Your task to perform on an android device: open app "Adobe Acrobat Reader: Edit PDF" Image 0: 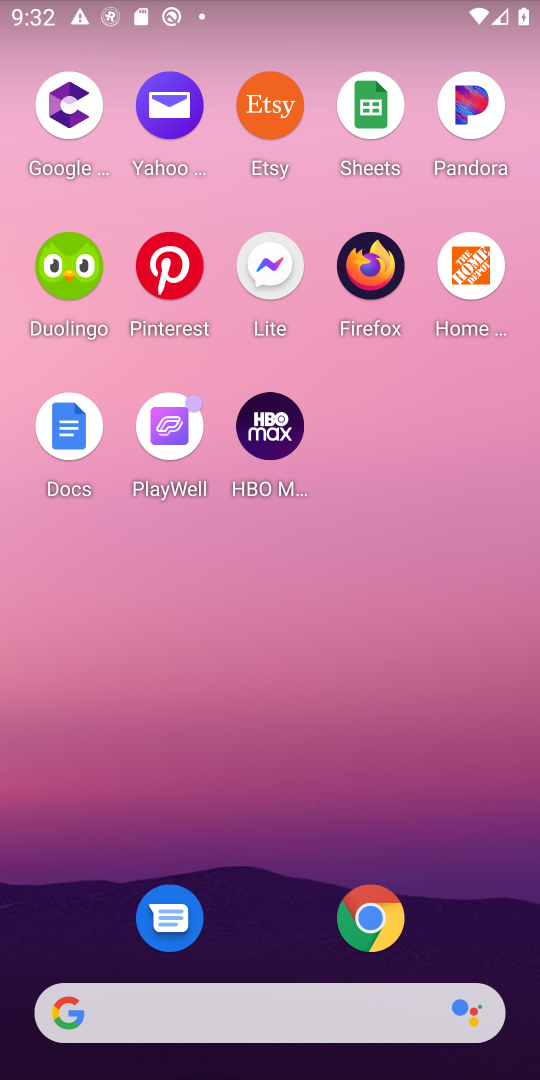
Step 0: drag from (183, 982) to (343, 434)
Your task to perform on an android device: open app "Adobe Acrobat Reader: Edit PDF" Image 1: 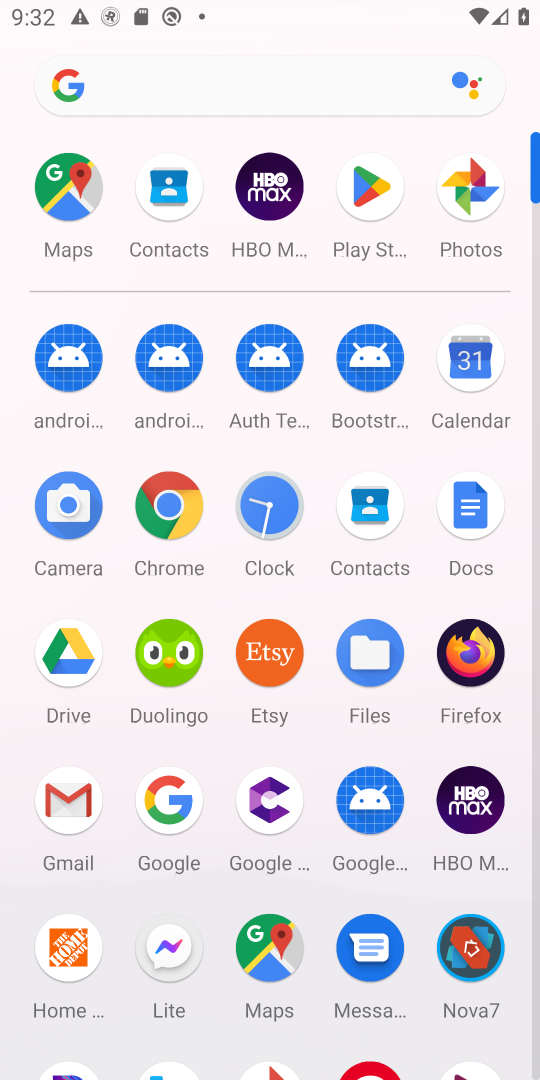
Step 1: click (375, 171)
Your task to perform on an android device: open app "Adobe Acrobat Reader: Edit PDF" Image 2: 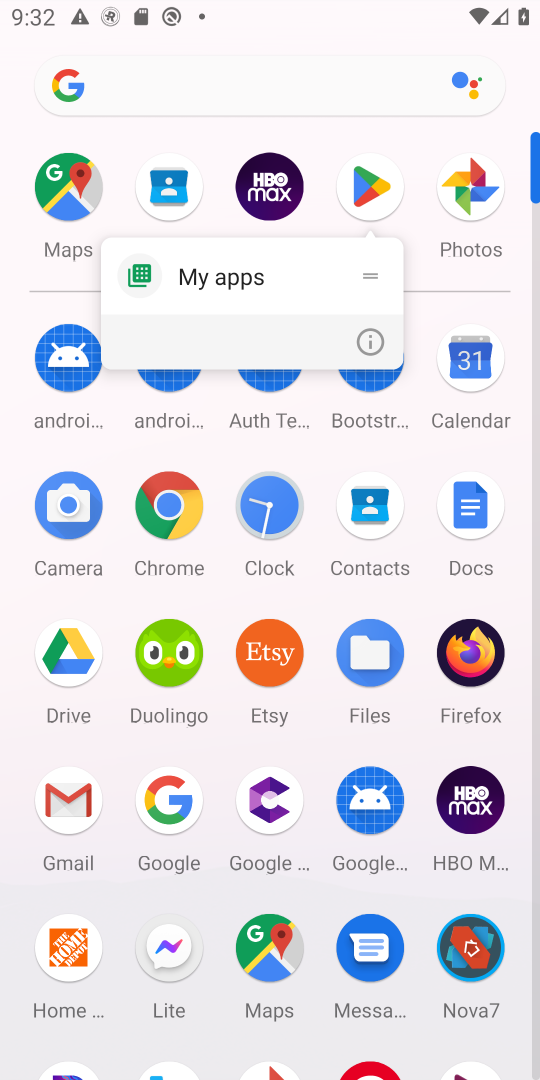
Step 2: click (349, 206)
Your task to perform on an android device: open app "Adobe Acrobat Reader: Edit PDF" Image 3: 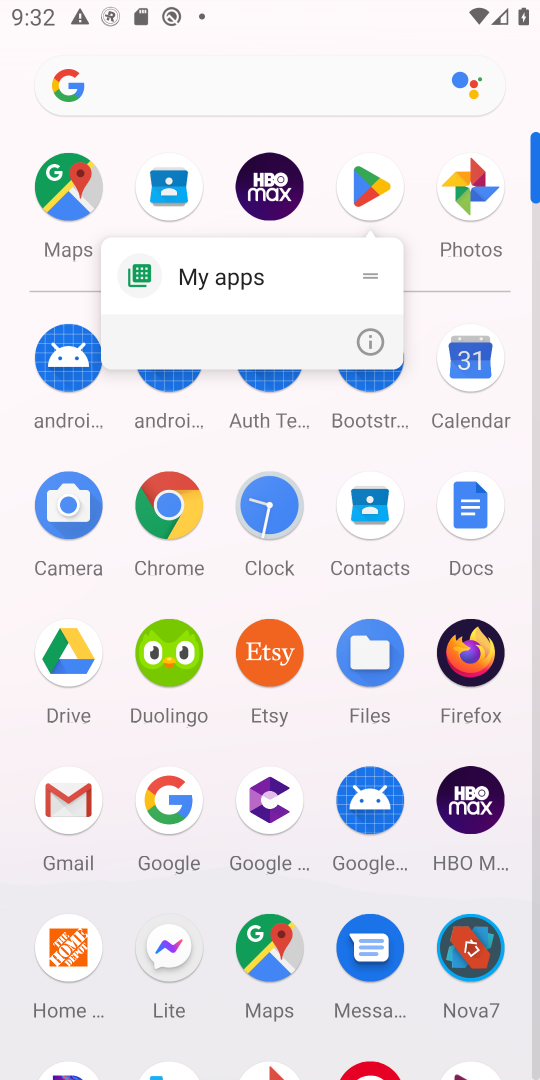
Step 3: click (353, 182)
Your task to perform on an android device: open app "Adobe Acrobat Reader: Edit PDF" Image 4: 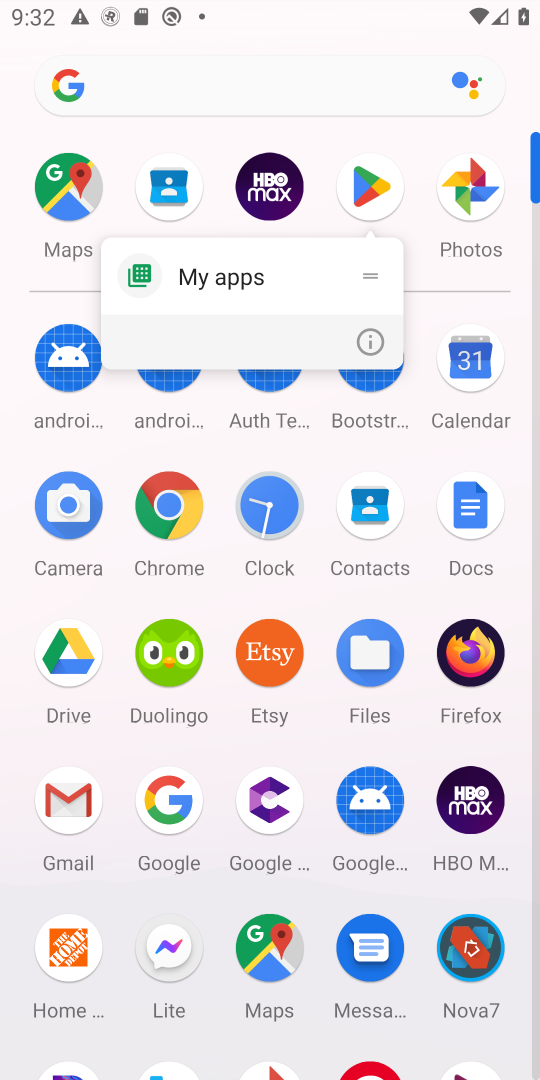
Step 4: click (353, 182)
Your task to perform on an android device: open app "Adobe Acrobat Reader: Edit PDF" Image 5: 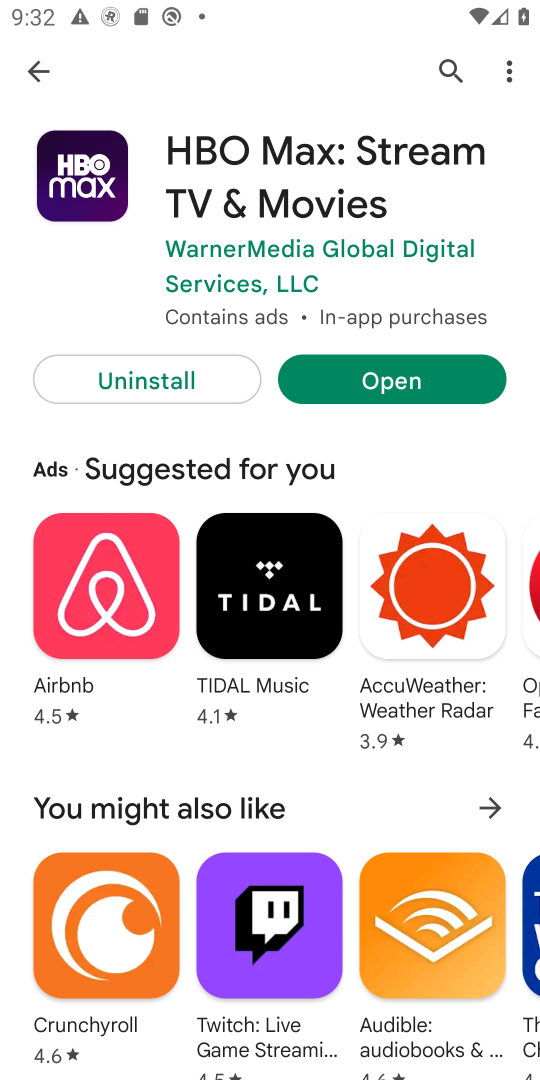
Step 5: click (456, 76)
Your task to perform on an android device: open app "Adobe Acrobat Reader: Edit PDF" Image 6: 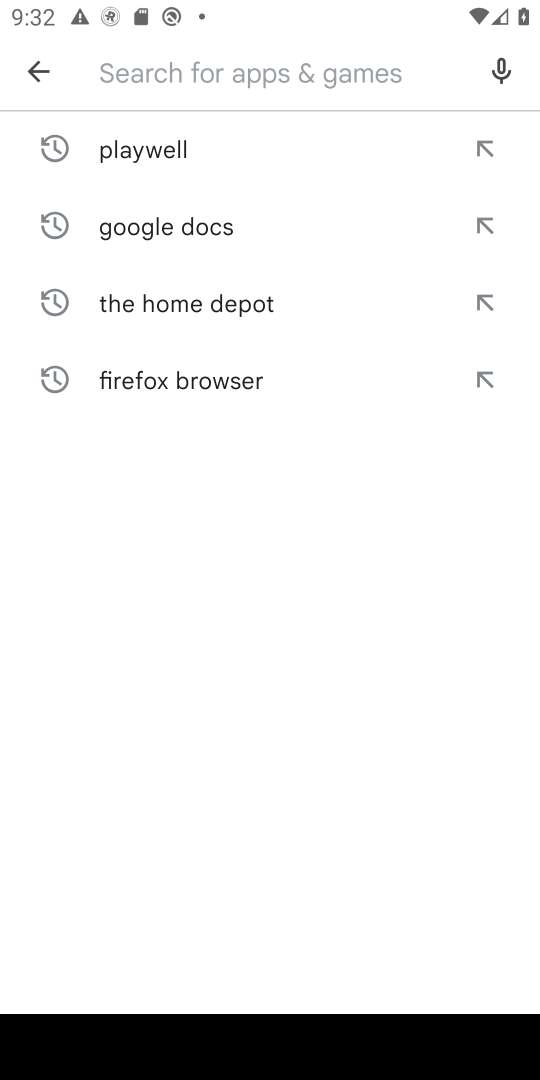
Step 6: type "Adobe Acrobat Reader: Edit PDF"
Your task to perform on an android device: open app "Adobe Acrobat Reader: Edit PDF" Image 7: 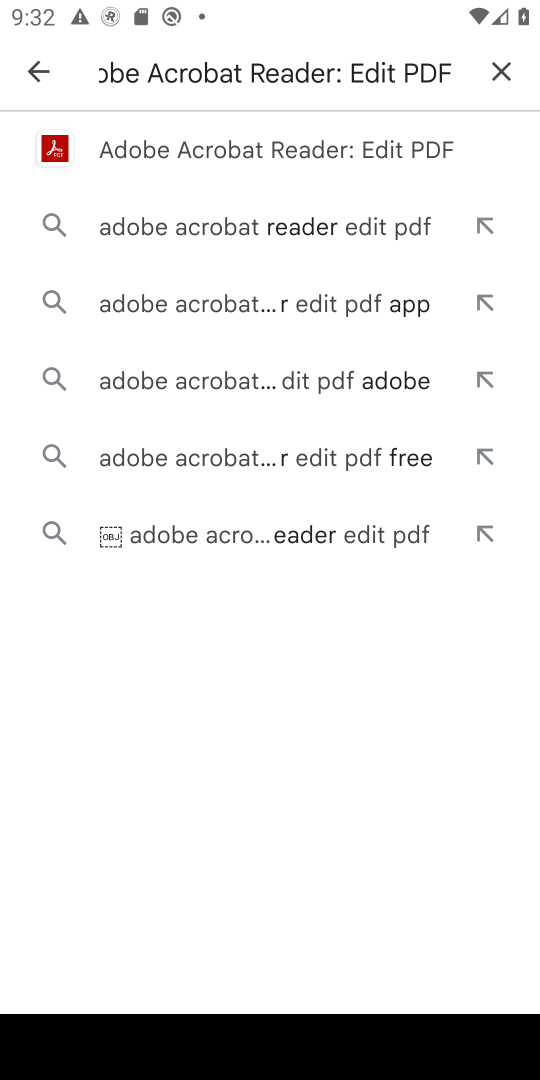
Step 7: click (368, 153)
Your task to perform on an android device: open app "Adobe Acrobat Reader: Edit PDF" Image 8: 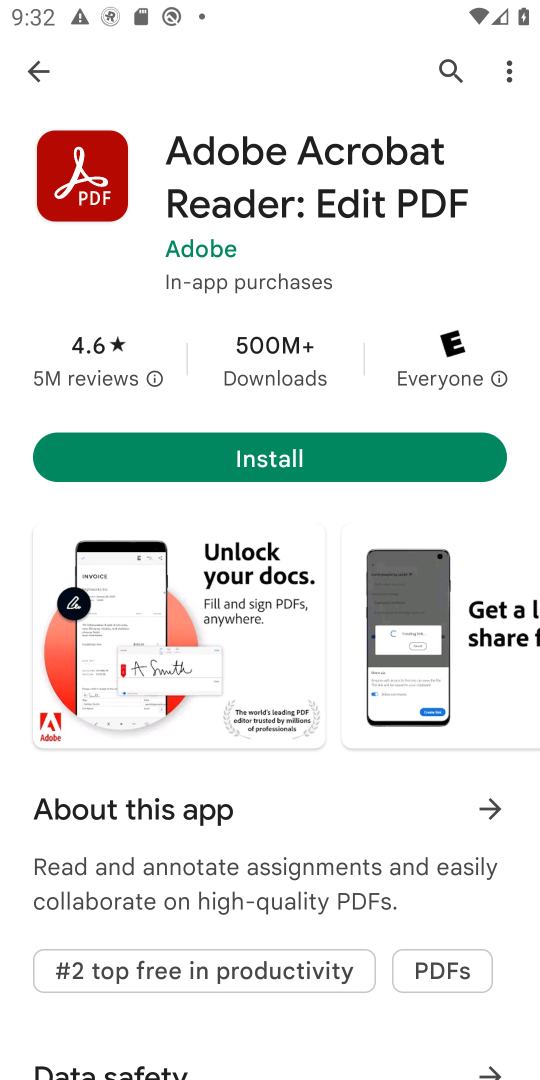
Step 8: task complete